Your task to perform on an android device: toggle wifi Image 0: 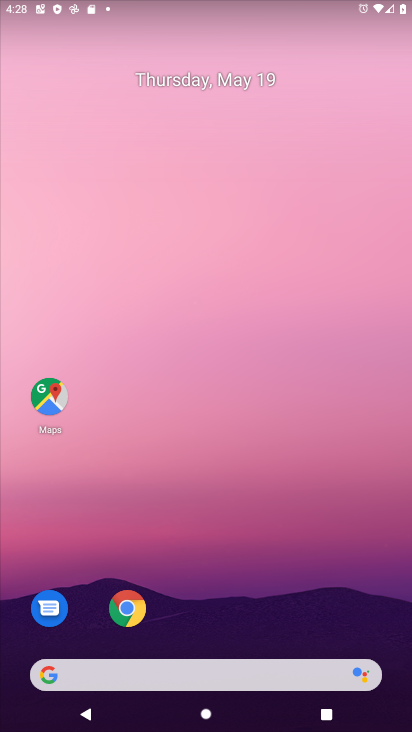
Step 0: drag from (258, 642) to (263, 192)
Your task to perform on an android device: toggle wifi Image 1: 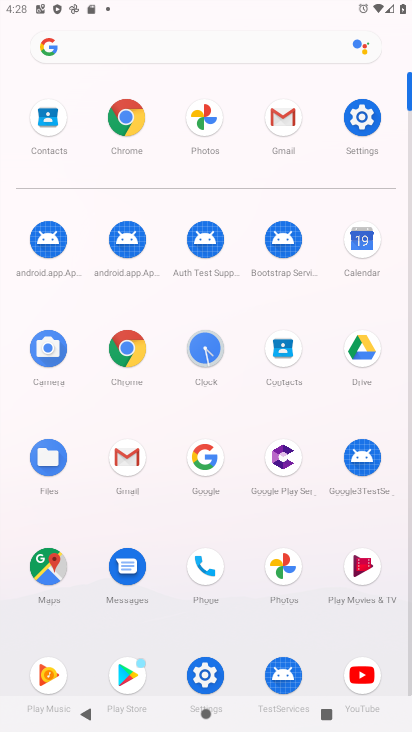
Step 1: click (354, 127)
Your task to perform on an android device: toggle wifi Image 2: 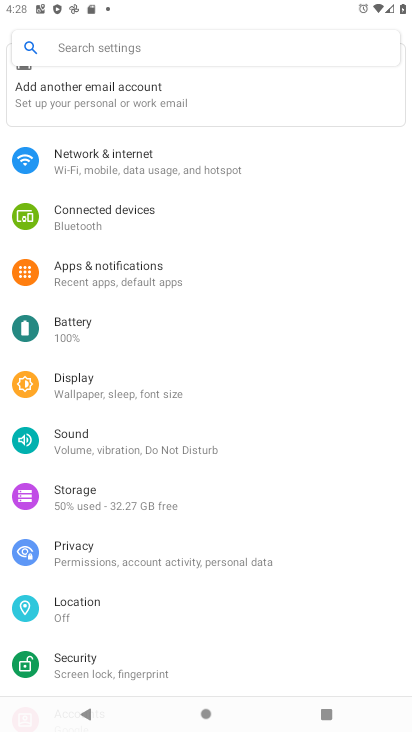
Step 2: click (212, 163)
Your task to perform on an android device: toggle wifi Image 3: 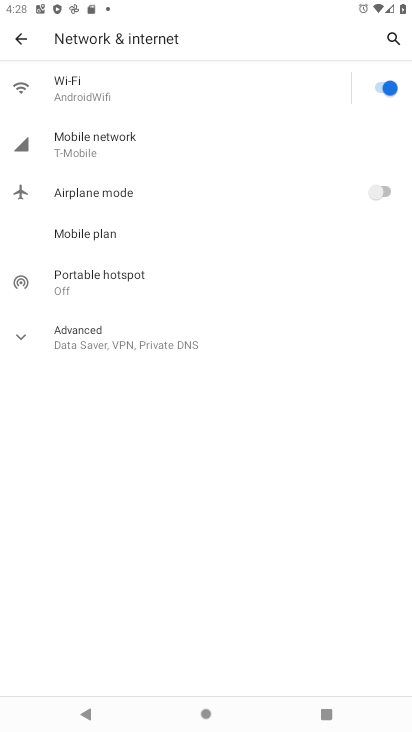
Step 3: click (191, 102)
Your task to perform on an android device: toggle wifi Image 4: 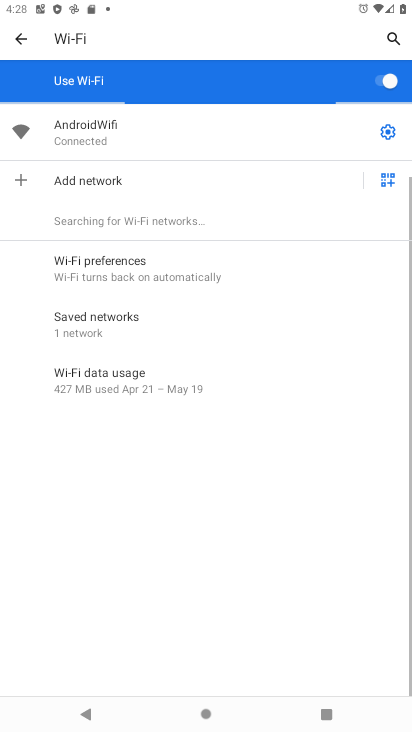
Step 4: task complete